Your task to perform on an android device: open chrome privacy settings Image 0: 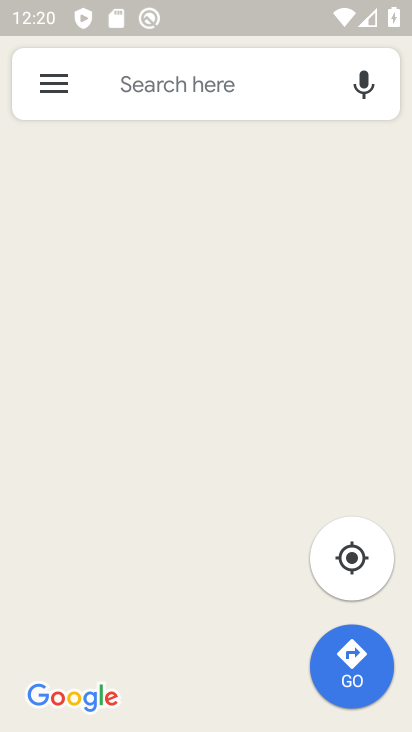
Step 0: drag from (357, 501) to (332, 86)
Your task to perform on an android device: open chrome privacy settings Image 1: 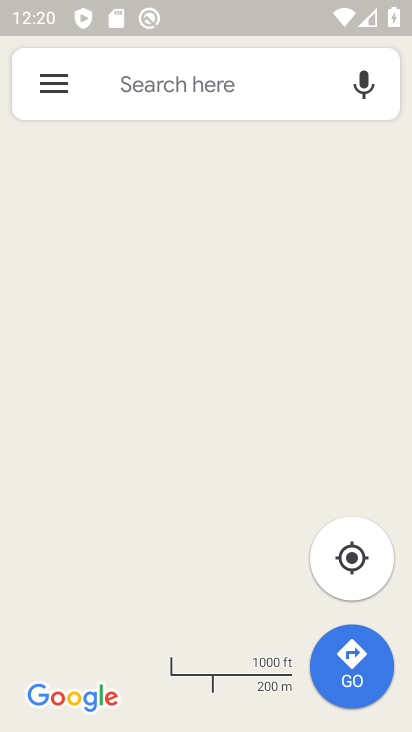
Step 1: press home button
Your task to perform on an android device: open chrome privacy settings Image 2: 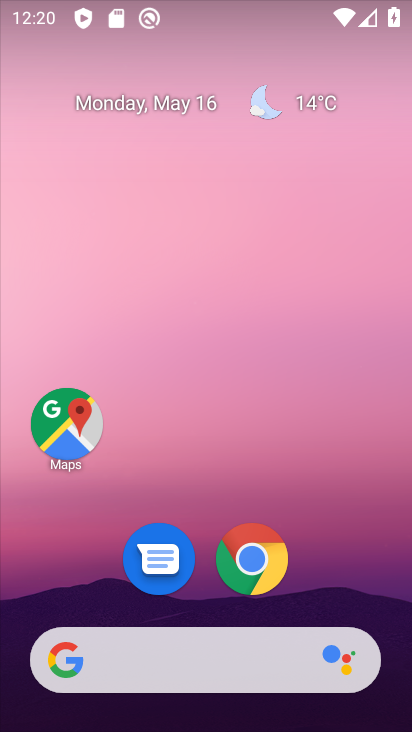
Step 2: drag from (360, 601) to (298, 85)
Your task to perform on an android device: open chrome privacy settings Image 3: 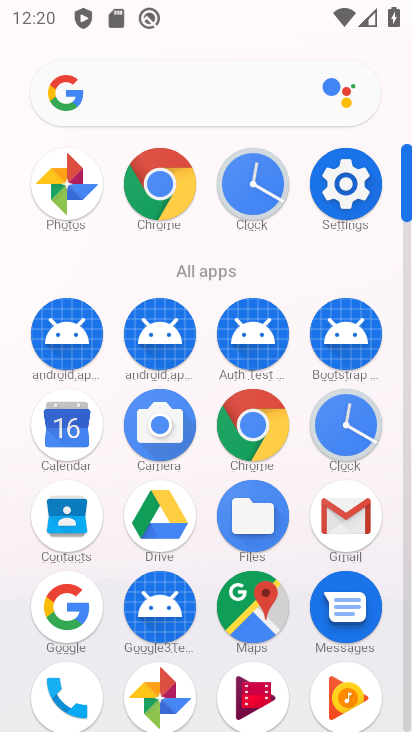
Step 3: click (158, 182)
Your task to perform on an android device: open chrome privacy settings Image 4: 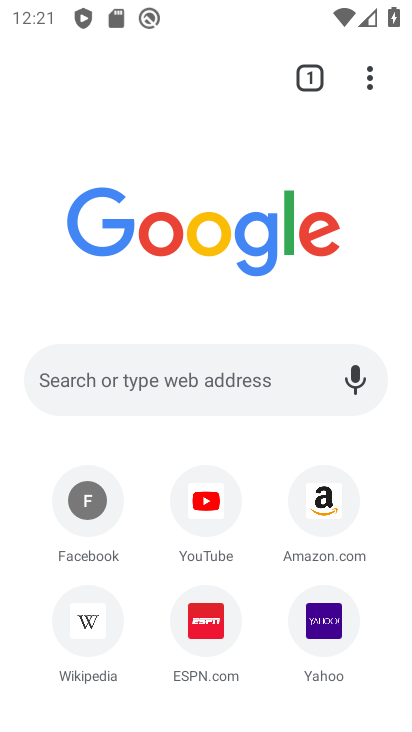
Step 4: drag from (367, 75) to (156, 641)
Your task to perform on an android device: open chrome privacy settings Image 5: 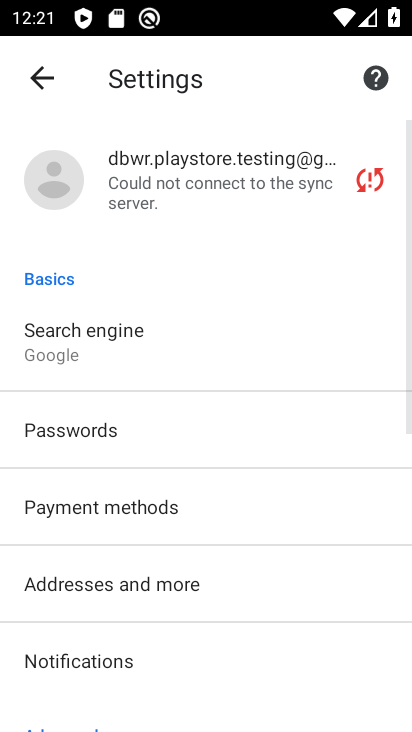
Step 5: drag from (164, 600) to (179, 97)
Your task to perform on an android device: open chrome privacy settings Image 6: 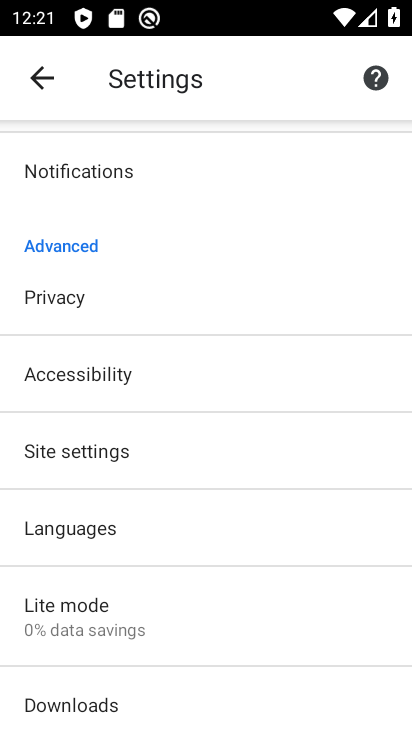
Step 6: drag from (160, 657) to (199, 194)
Your task to perform on an android device: open chrome privacy settings Image 7: 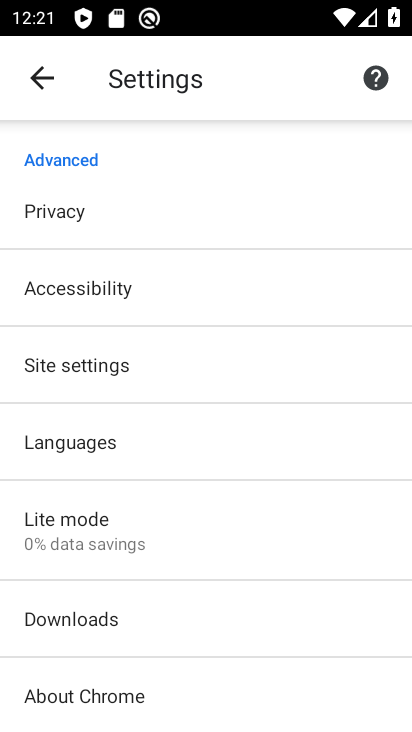
Step 7: click (167, 222)
Your task to perform on an android device: open chrome privacy settings Image 8: 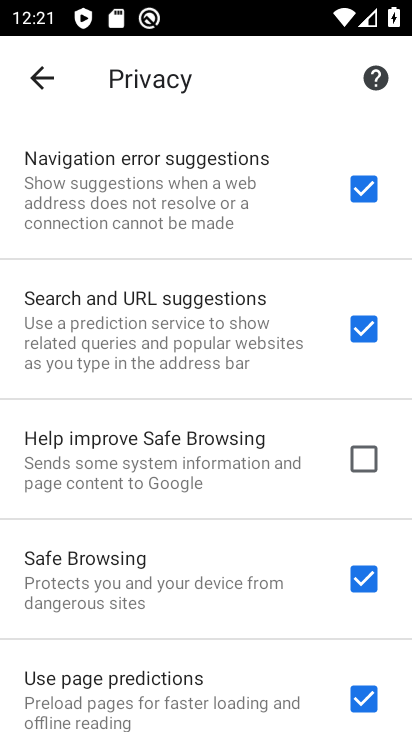
Step 8: task complete